Your task to perform on an android device: See recent photos Image 0: 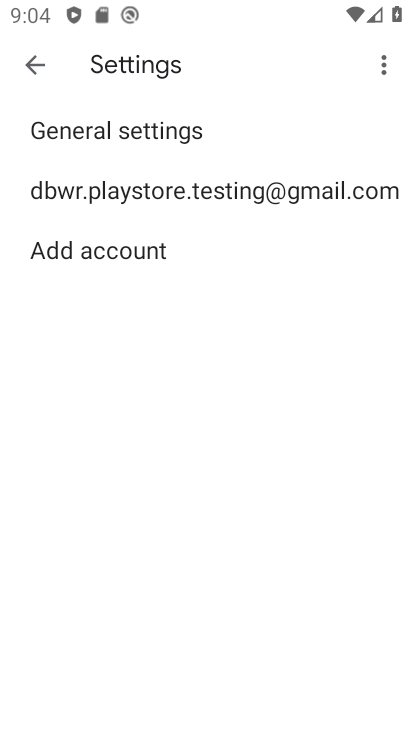
Step 0: press home button
Your task to perform on an android device: See recent photos Image 1: 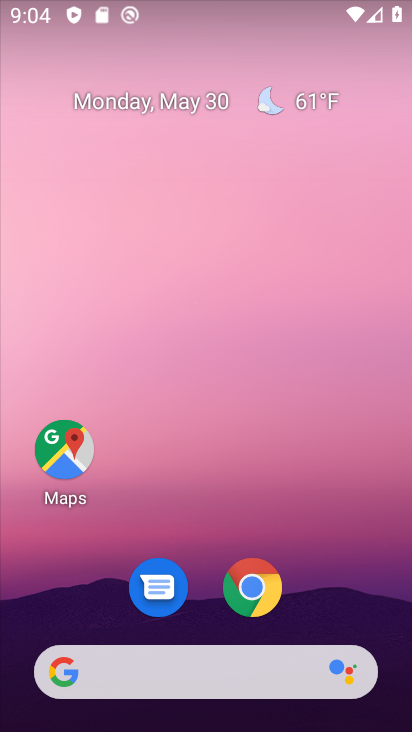
Step 1: drag from (204, 624) to (321, 44)
Your task to perform on an android device: See recent photos Image 2: 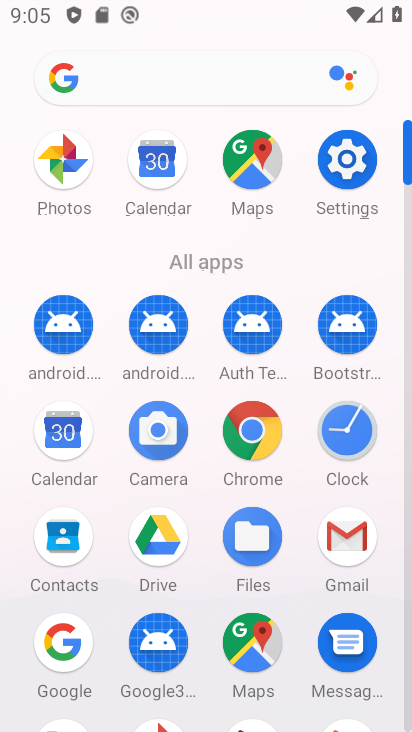
Step 2: click (47, 153)
Your task to perform on an android device: See recent photos Image 3: 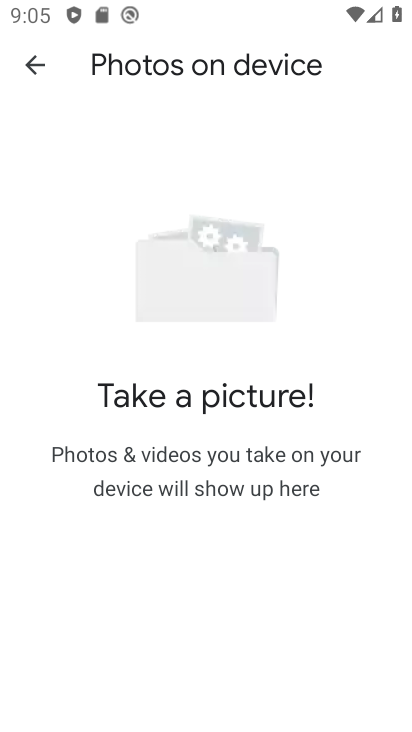
Step 3: click (24, 71)
Your task to perform on an android device: See recent photos Image 4: 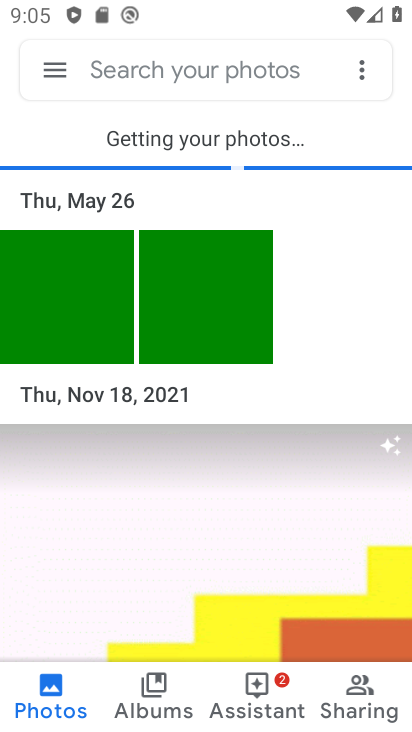
Step 4: task complete